Your task to perform on an android device: Search for pizza restaurants on Maps Image 0: 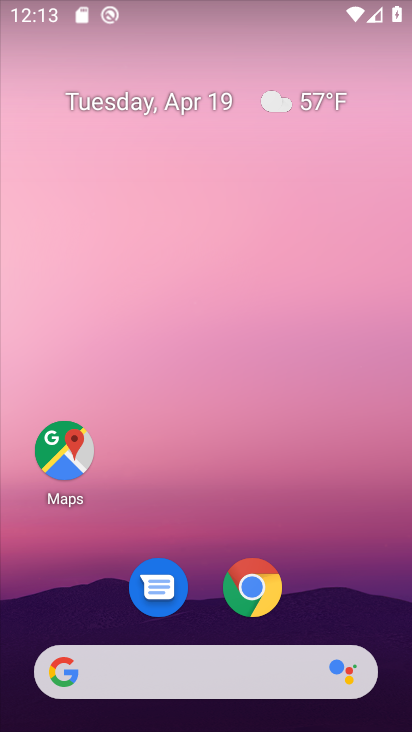
Step 0: click (69, 449)
Your task to perform on an android device: Search for pizza restaurants on Maps Image 1: 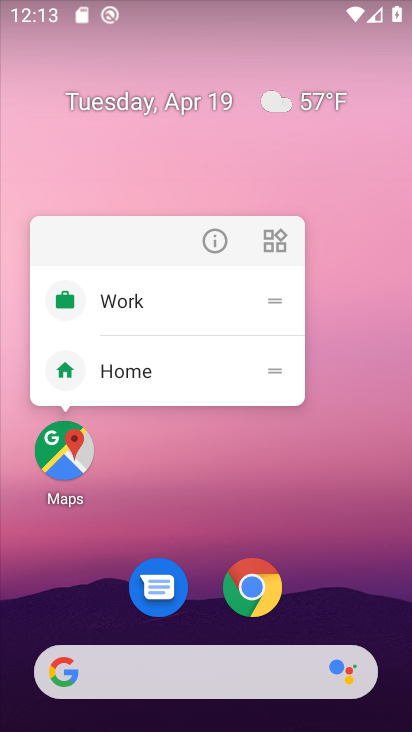
Step 1: click (64, 463)
Your task to perform on an android device: Search for pizza restaurants on Maps Image 2: 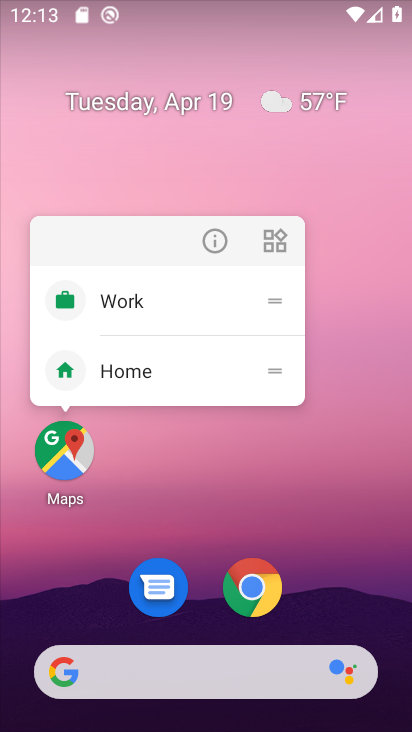
Step 2: click (64, 466)
Your task to perform on an android device: Search for pizza restaurants on Maps Image 3: 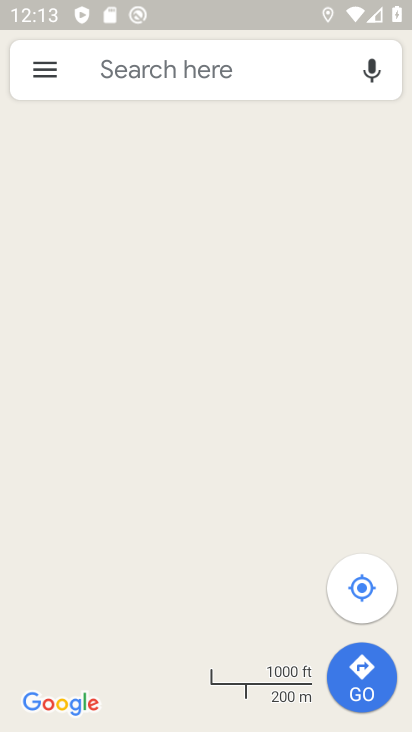
Step 3: click (225, 77)
Your task to perform on an android device: Search for pizza restaurants on Maps Image 4: 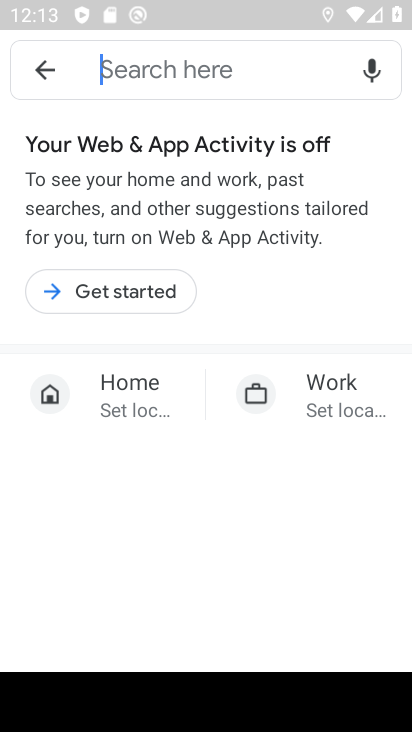
Step 4: click (122, 281)
Your task to perform on an android device: Search for pizza restaurants on Maps Image 5: 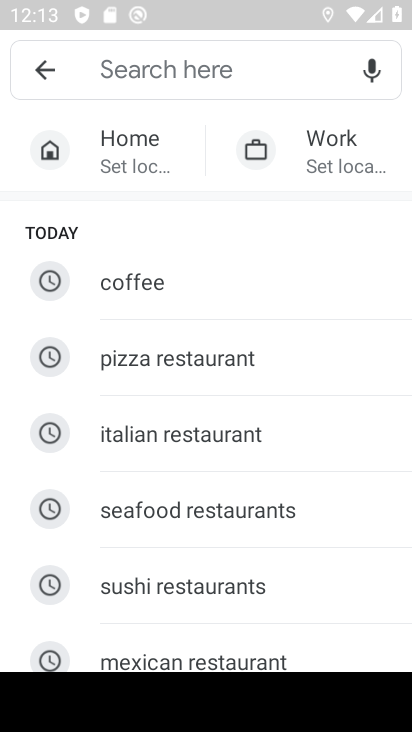
Step 5: click (169, 351)
Your task to perform on an android device: Search for pizza restaurants on Maps Image 6: 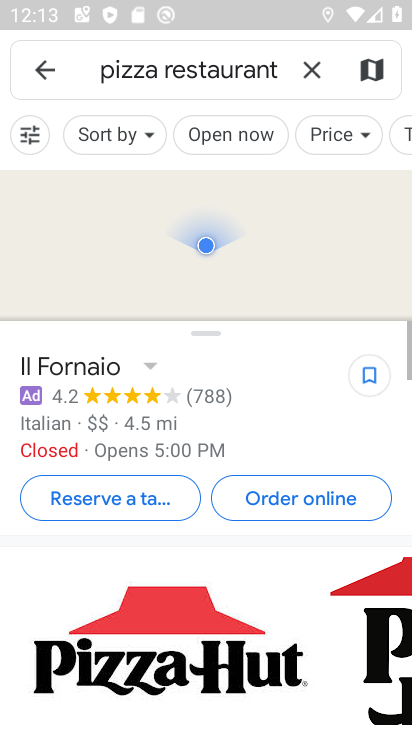
Step 6: task complete